Your task to perform on an android device: Show me recent news Image 0: 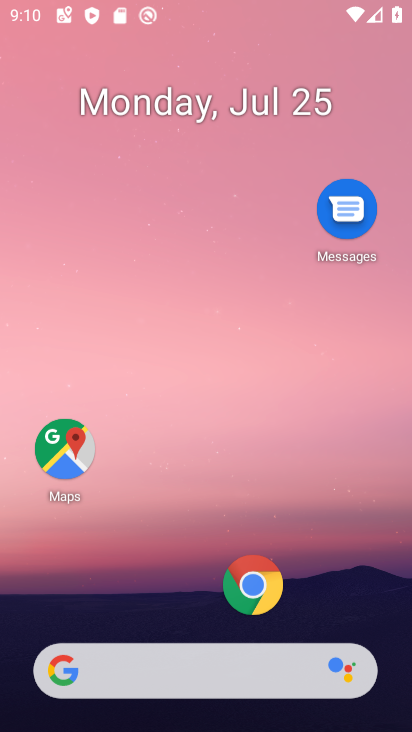
Step 0: press home button
Your task to perform on an android device: Show me recent news Image 1: 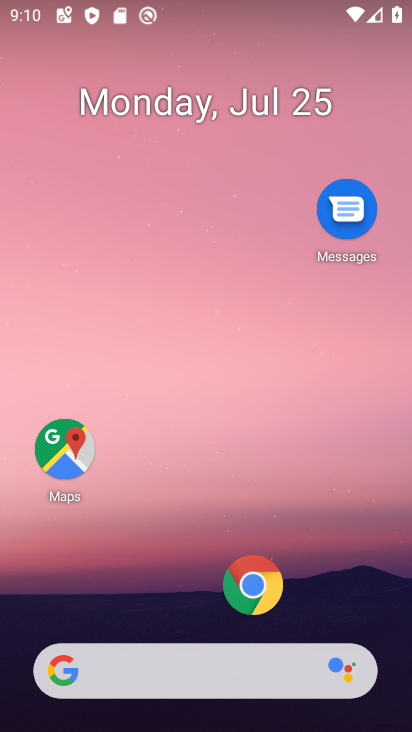
Step 1: click (144, 667)
Your task to perform on an android device: Show me recent news Image 2: 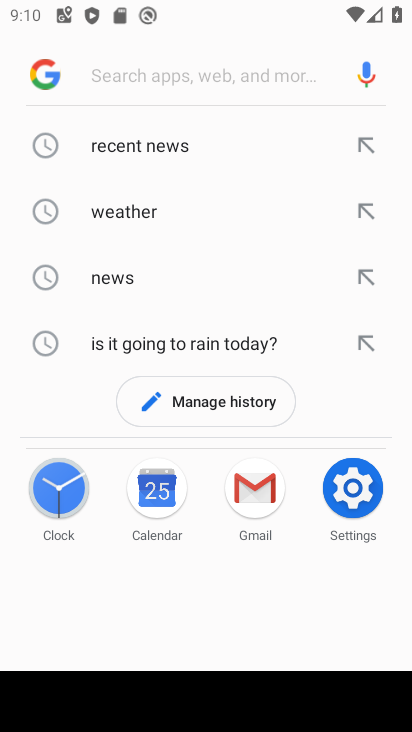
Step 2: click (164, 150)
Your task to perform on an android device: Show me recent news Image 3: 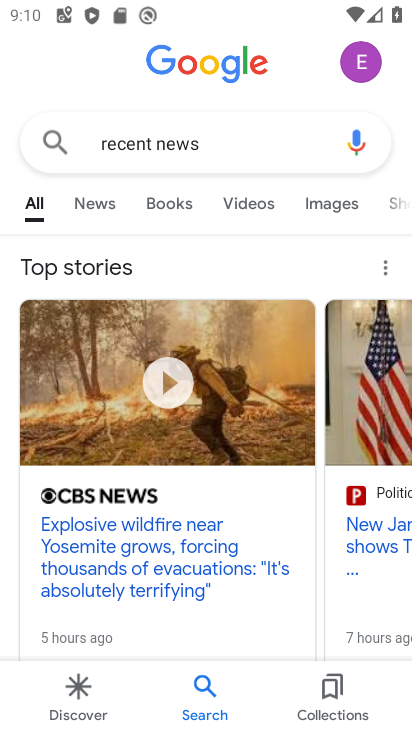
Step 3: click (91, 205)
Your task to perform on an android device: Show me recent news Image 4: 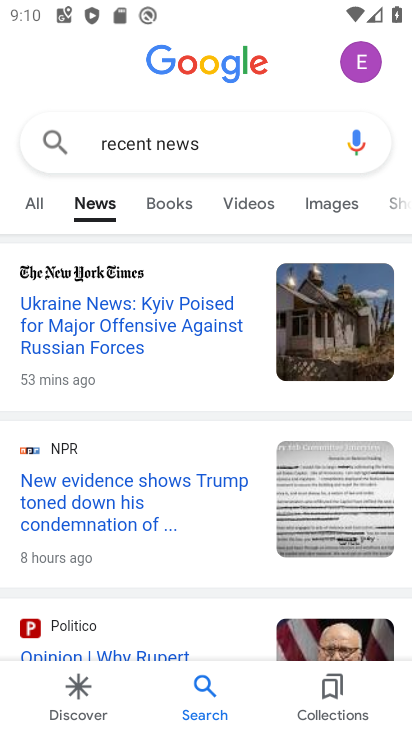
Step 4: task complete